Your task to perform on an android device: Empty the shopping cart on target.com. Add logitech g910 to the cart on target.com, then select checkout. Image 0: 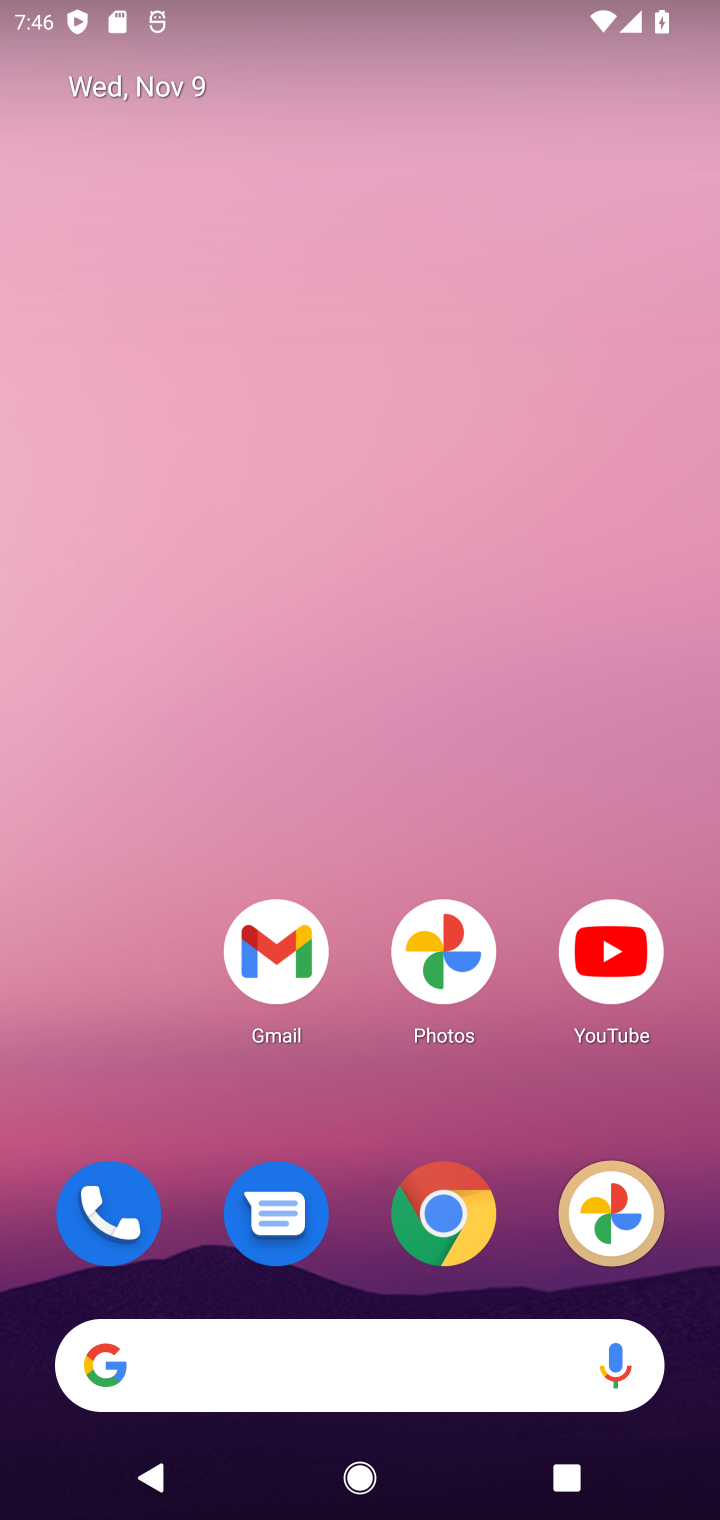
Step 0: click (463, 1226)
Your task to perform on an android device: Empty the shopping cart on target.com. Add logitech g910 to the cart on target.com, then select checkout. Image 1: 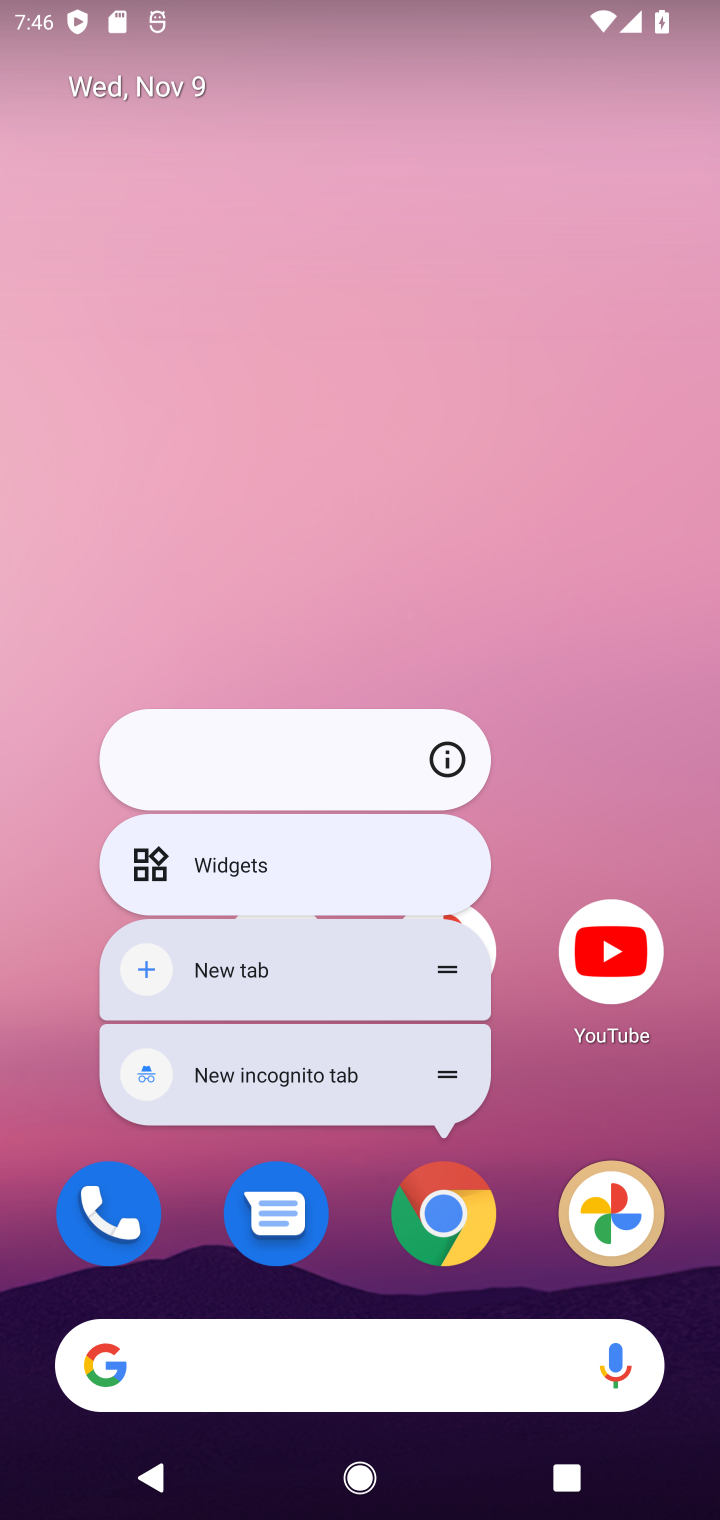
Step 1: click (443, 1214)
Your task to perform on an android device: Empty the shopping cart on target.com. Add logitech g910 to the cart on target.com, then select checkout. Image 2: 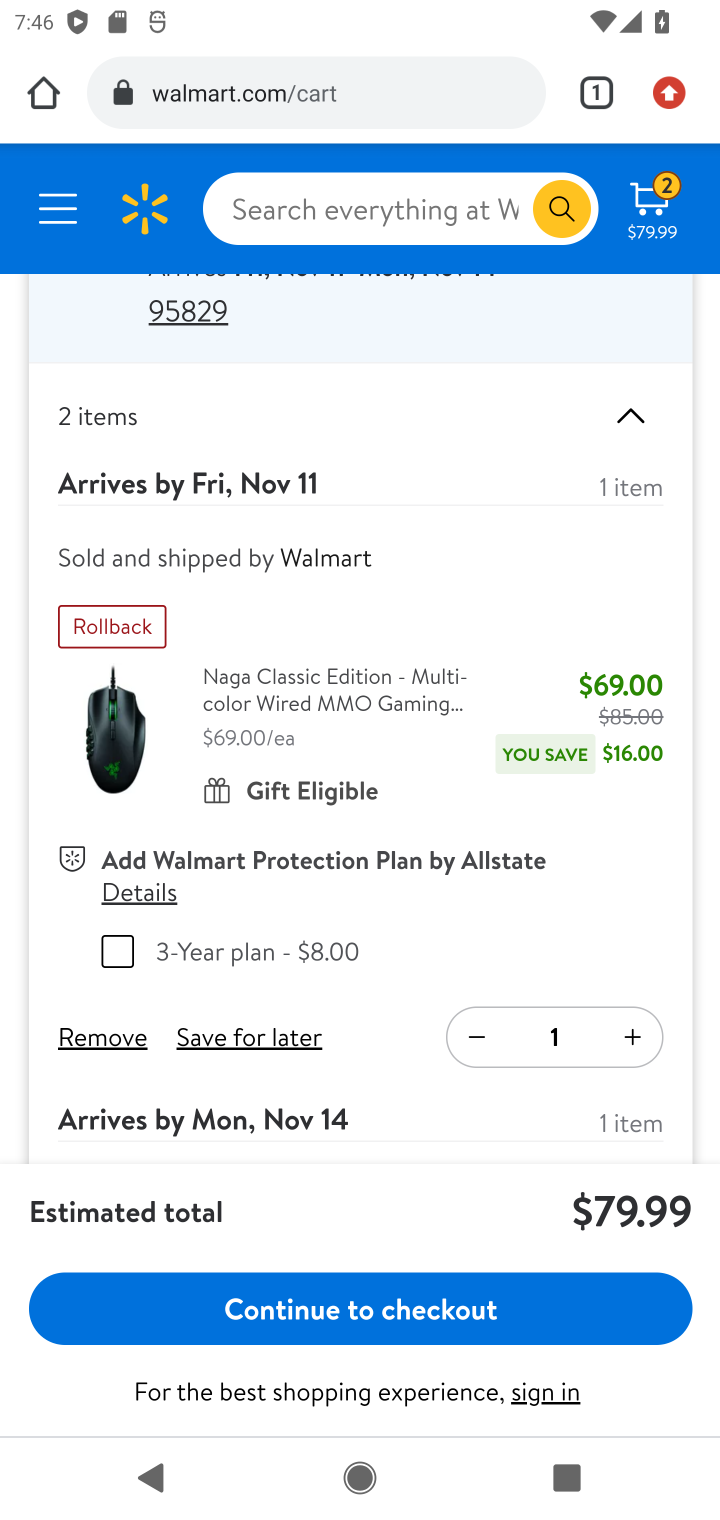
Step 2: click (227, 73)
Your task to perform on an android device: Empty the shopping cart on target.com. Add logitech g910 to the cart on target.com, then select checkout. Image 3: 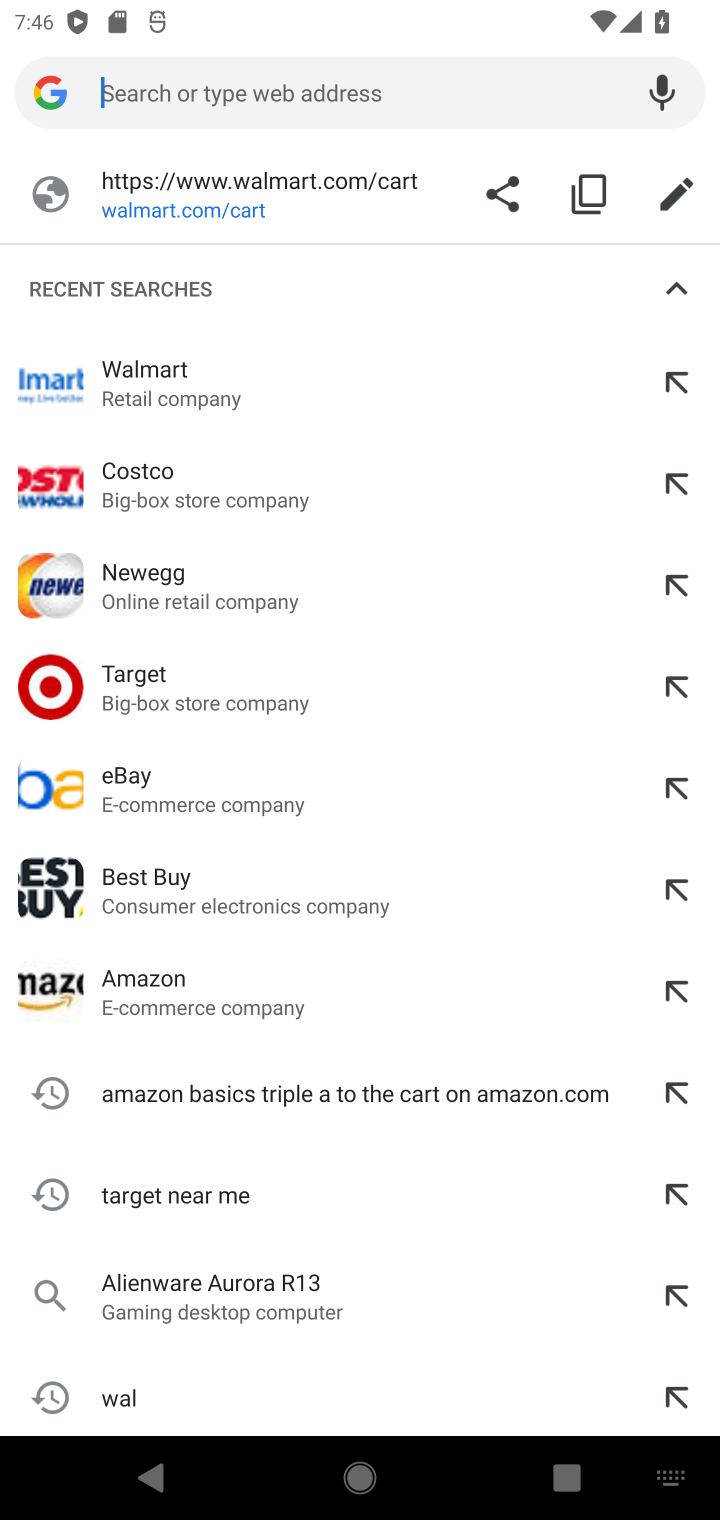
Step 3: click (117, 691)
Your task to perform on an android device: Empty the shopping cart on target.com. Add logitech g910 to the cart on target.com, then select checkout. Image 4: 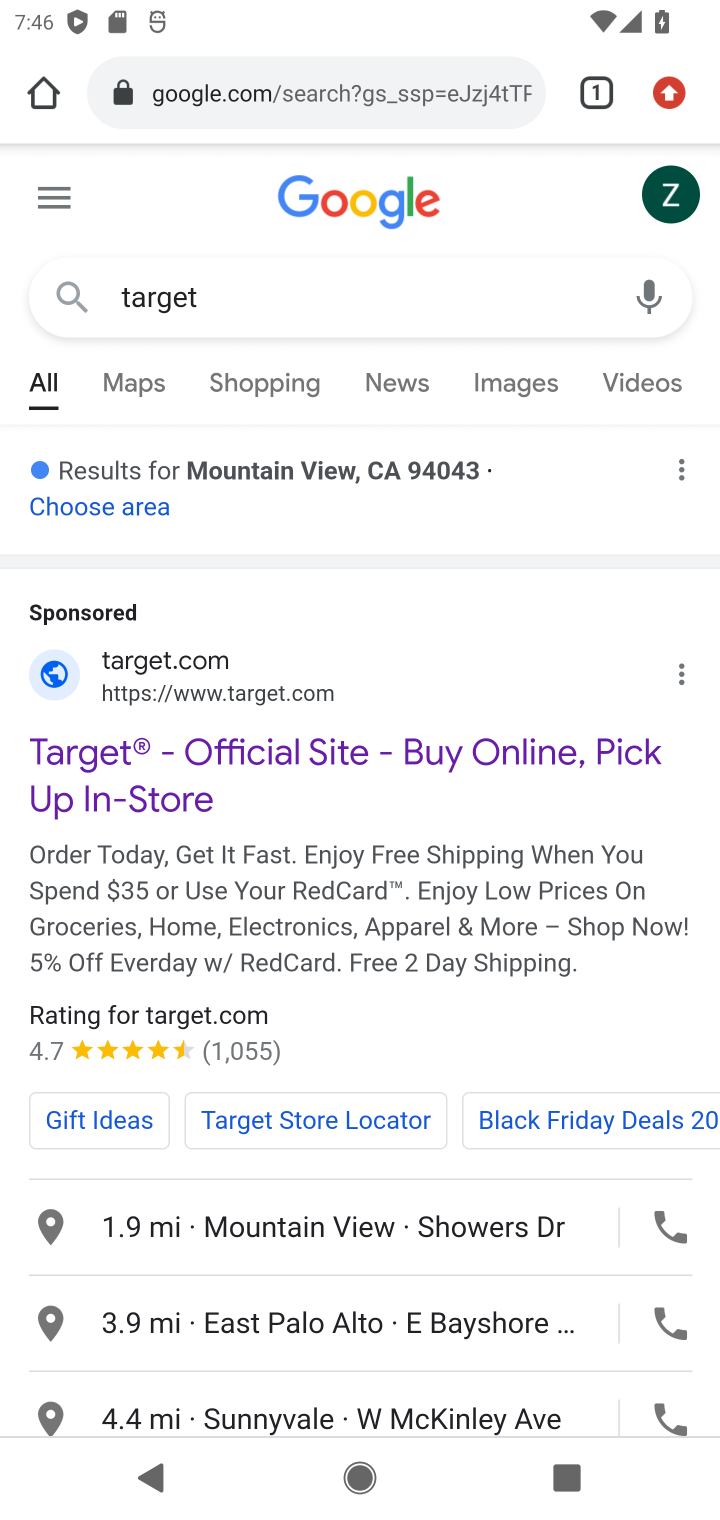
Step 4: drag from (279, 1168) to (332, 692)
Your task to perform on an android device: Empty the shopping cart on target.com. Add logitech g910 to the cart on target.com, then select checkout. Image 5: 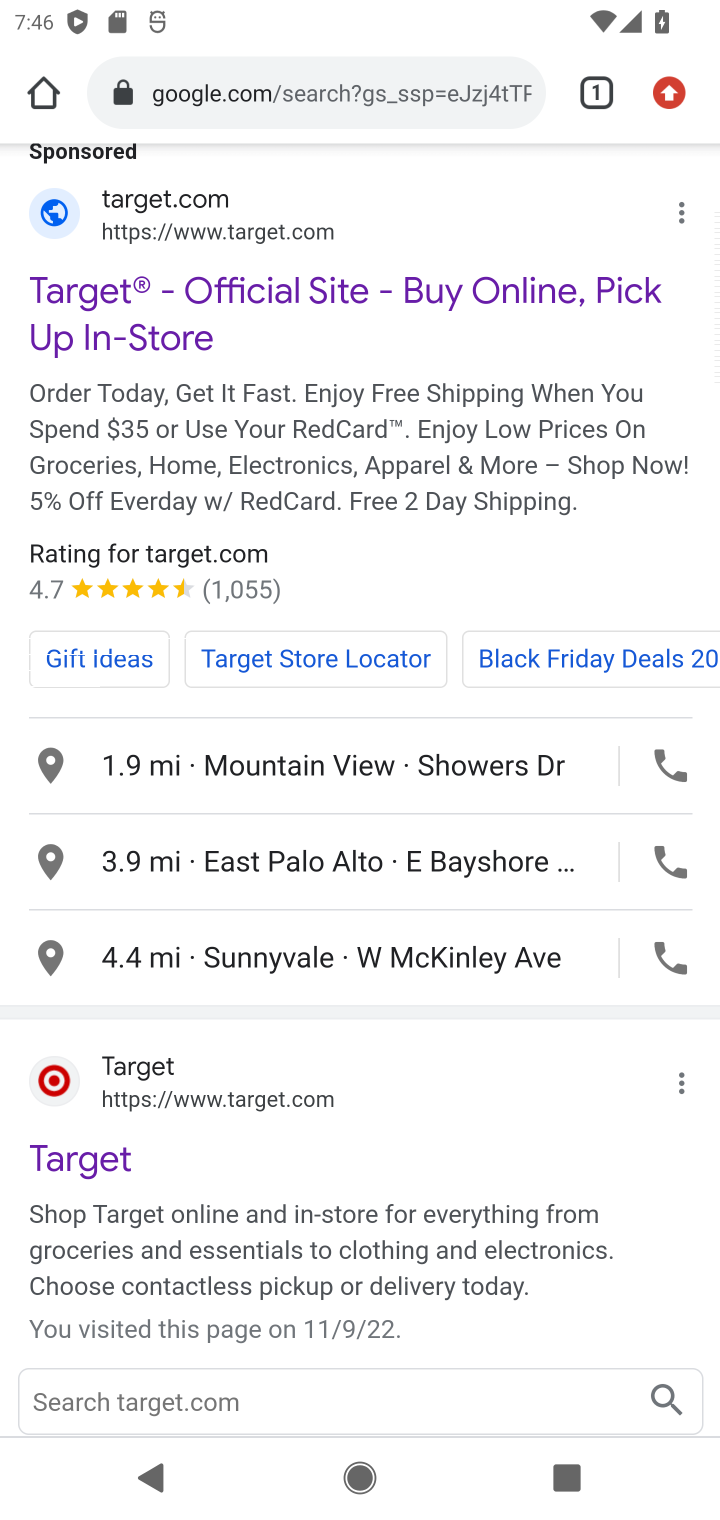
Step 5: click (76, 1165)
Your task to perform on an android device: Empty the shopping cart on target.com. Add logitech g910 to the cart on target.com, then select checkout. Image 6: 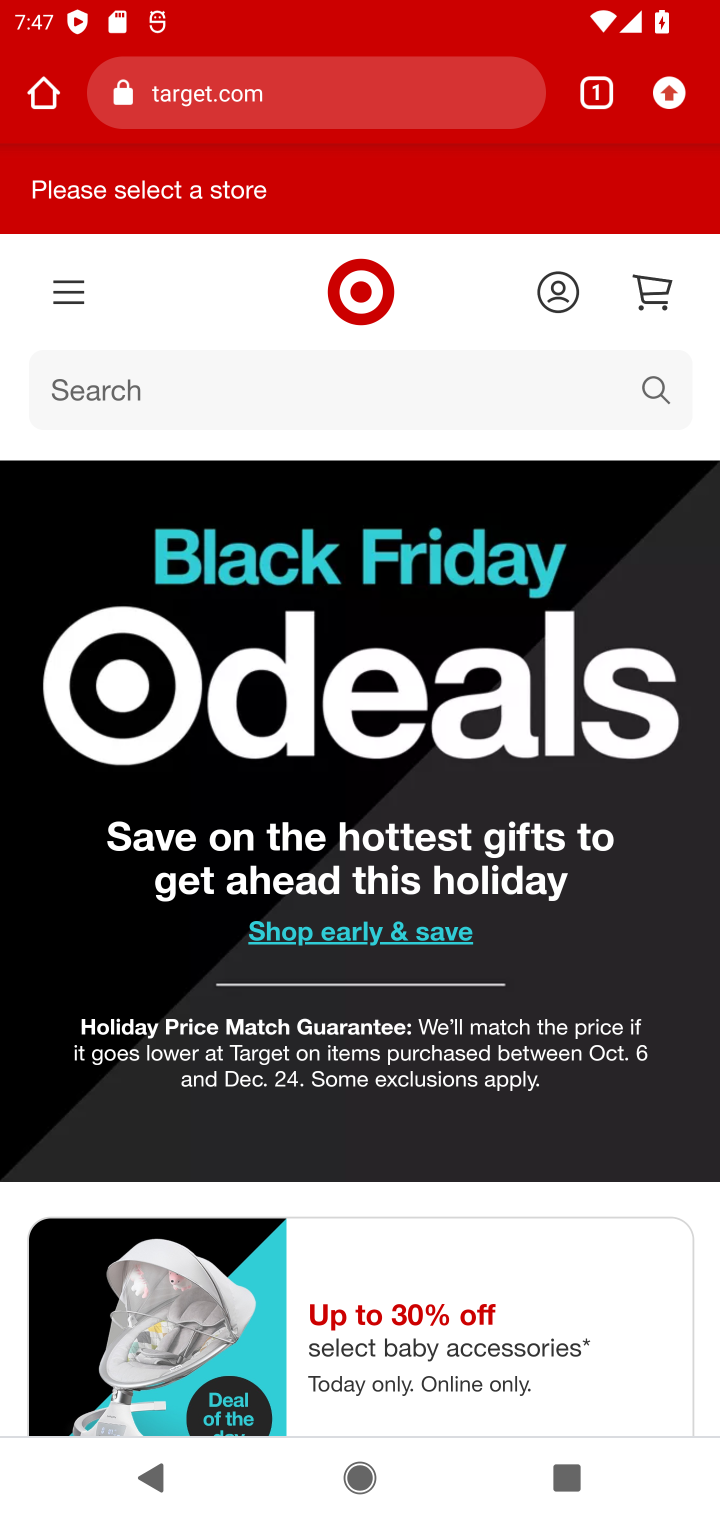
Step 6: click (168, 387)
Your task to perform on an android device: Empty the shopping cart on target.com. Add logitech g910 to the cart on target.com, then select checkout. Image 7: 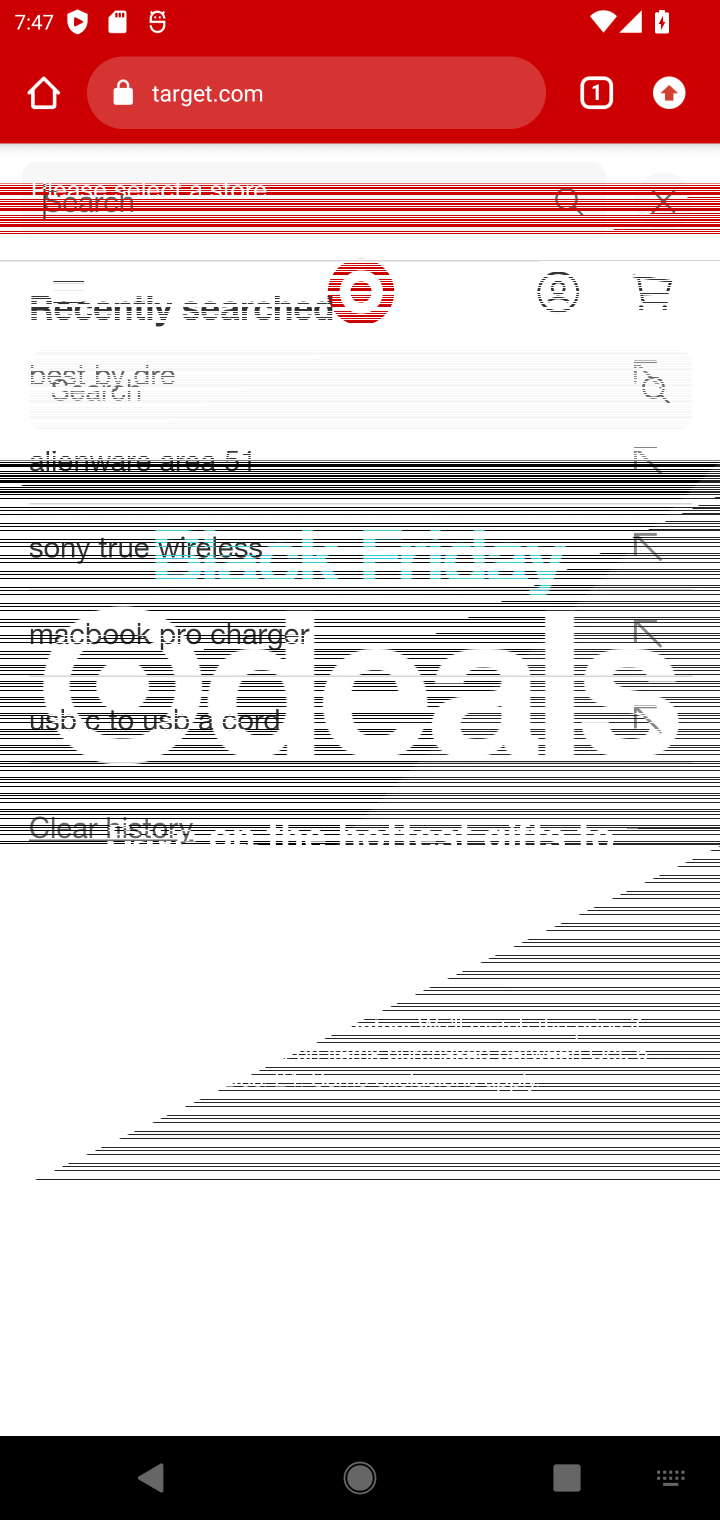
Step 7: click (208, 411)
Your task to perform on an android device: Empty the shopping cart on target.com. Add logitech g910 to the cart on target.com, then select checkout. Image 8: 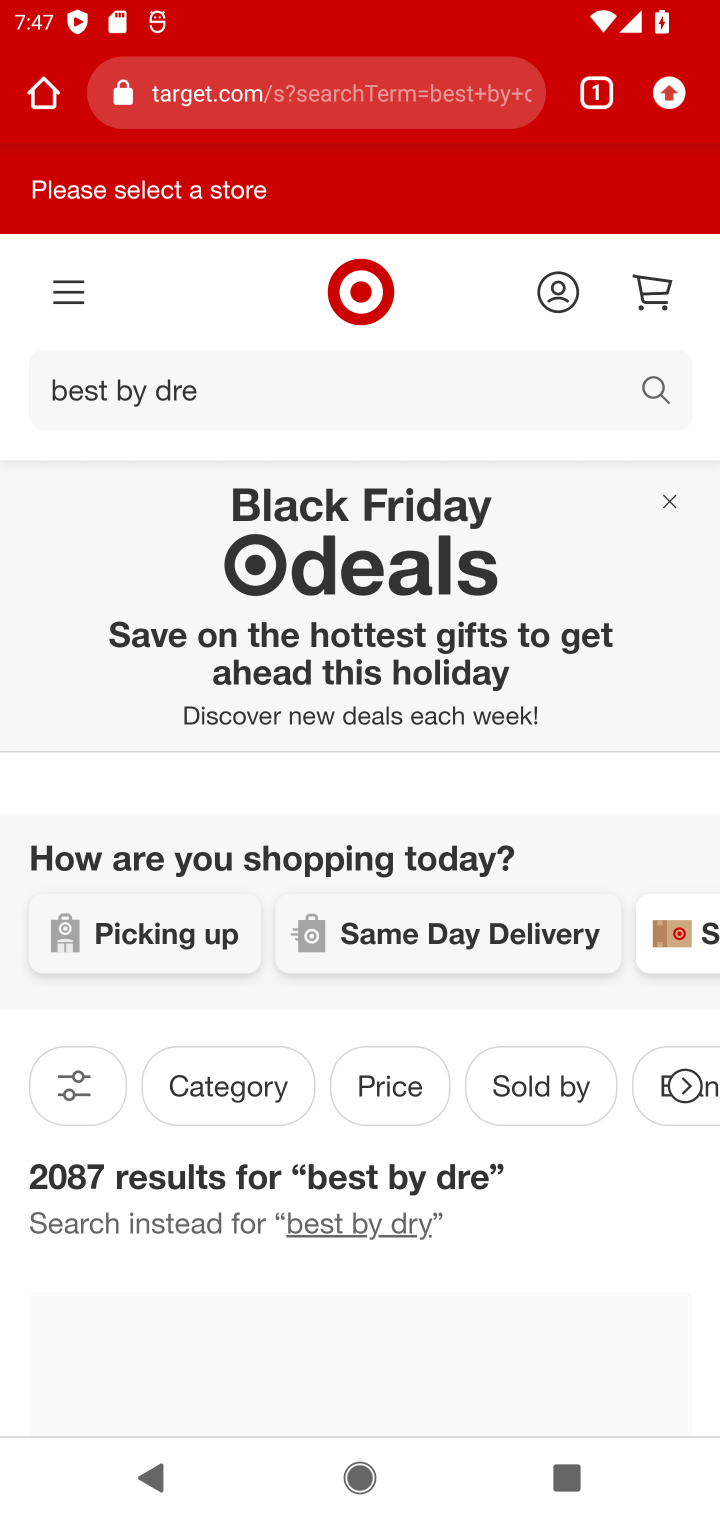
Step 8: click (408, 367)
Your task to perform on an android device: Empty the shopping cart on target.com. Add logitech g910 to the cart on target.com, then select checkout. Image 9: 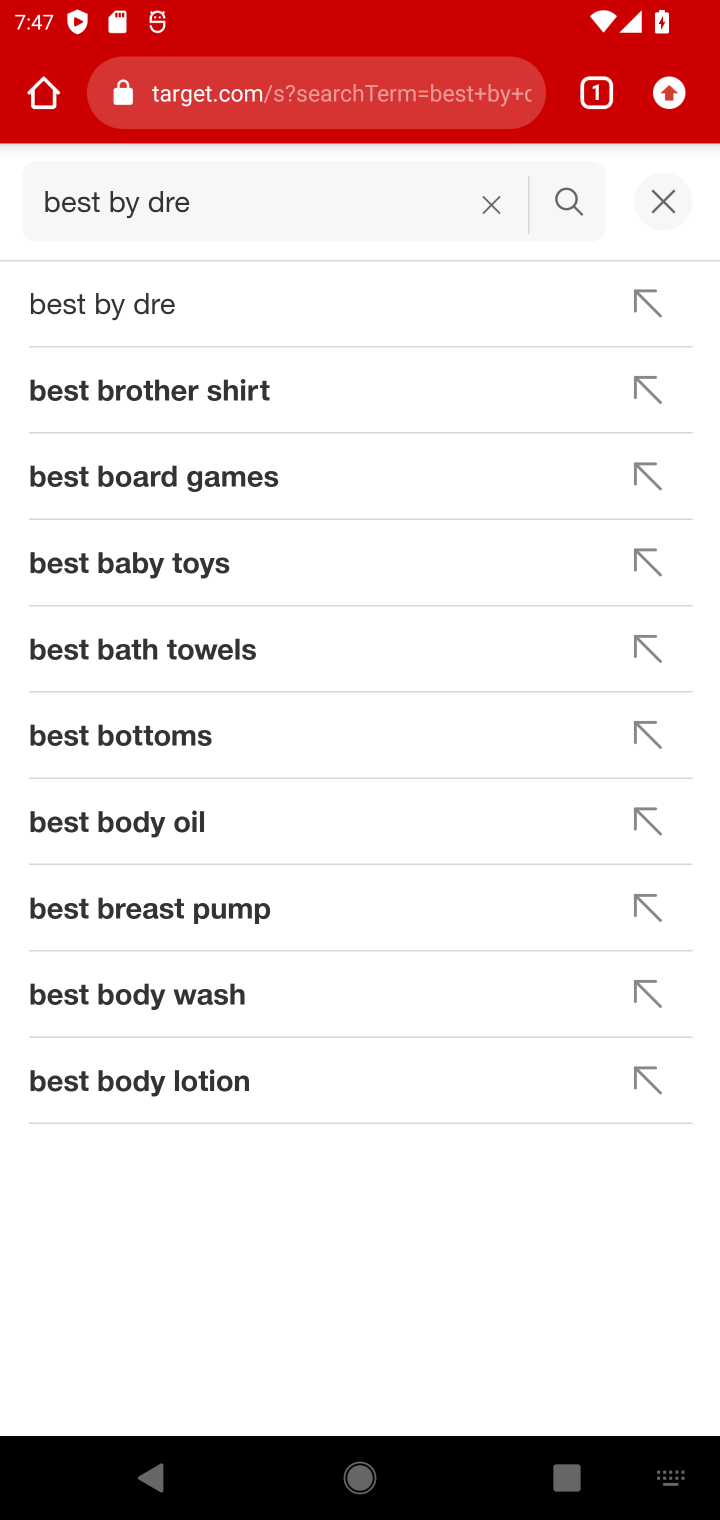
Step 9: click (494, 202)
Your task to perform on an android device: Empty the shopping cart on target.com. Add logitech g910 to the cart on target.com, then select checkout. Image 10: 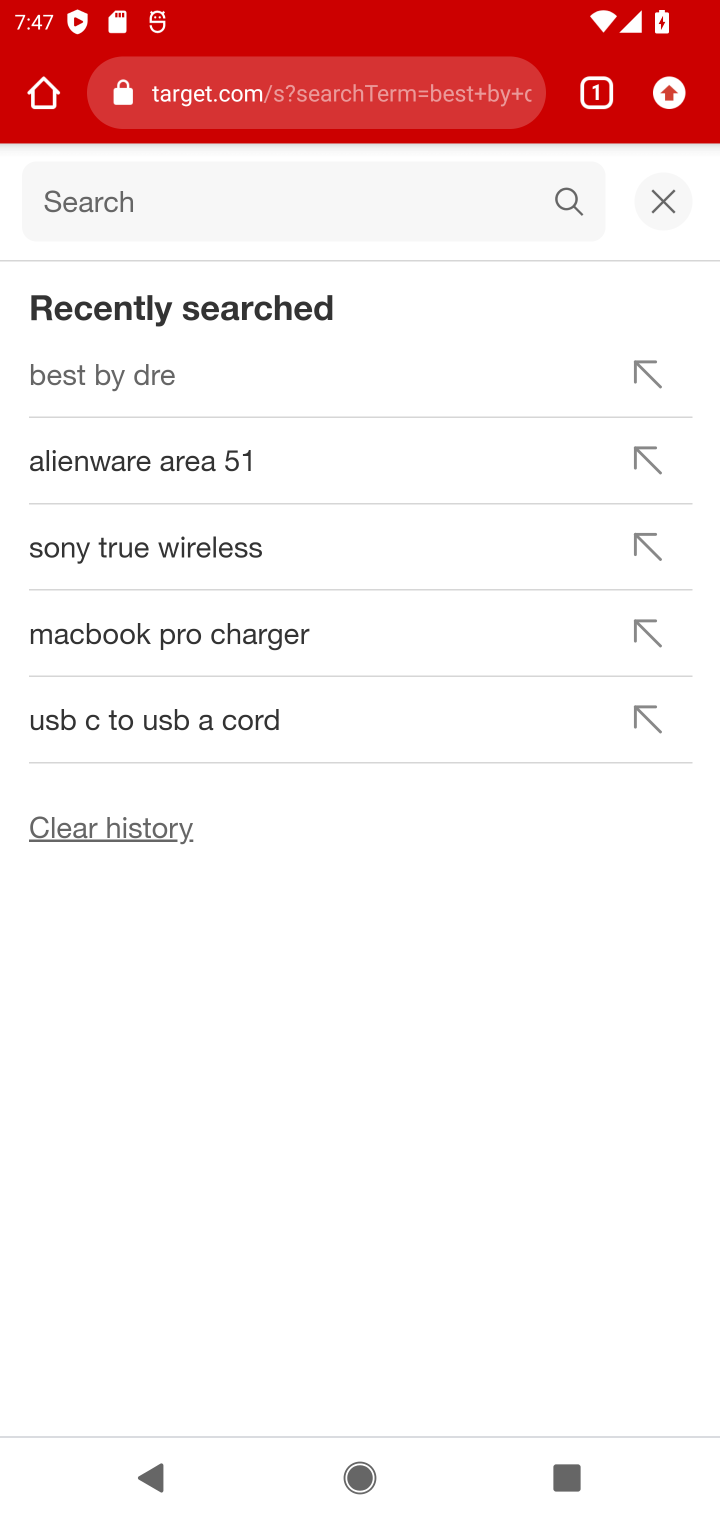
Step 10: click (494, 202)
Your task to perform on an android device: Empty the shopping cart on target.com. Add logitech g910 to the cart on target.com, then select checkout. Image 11: 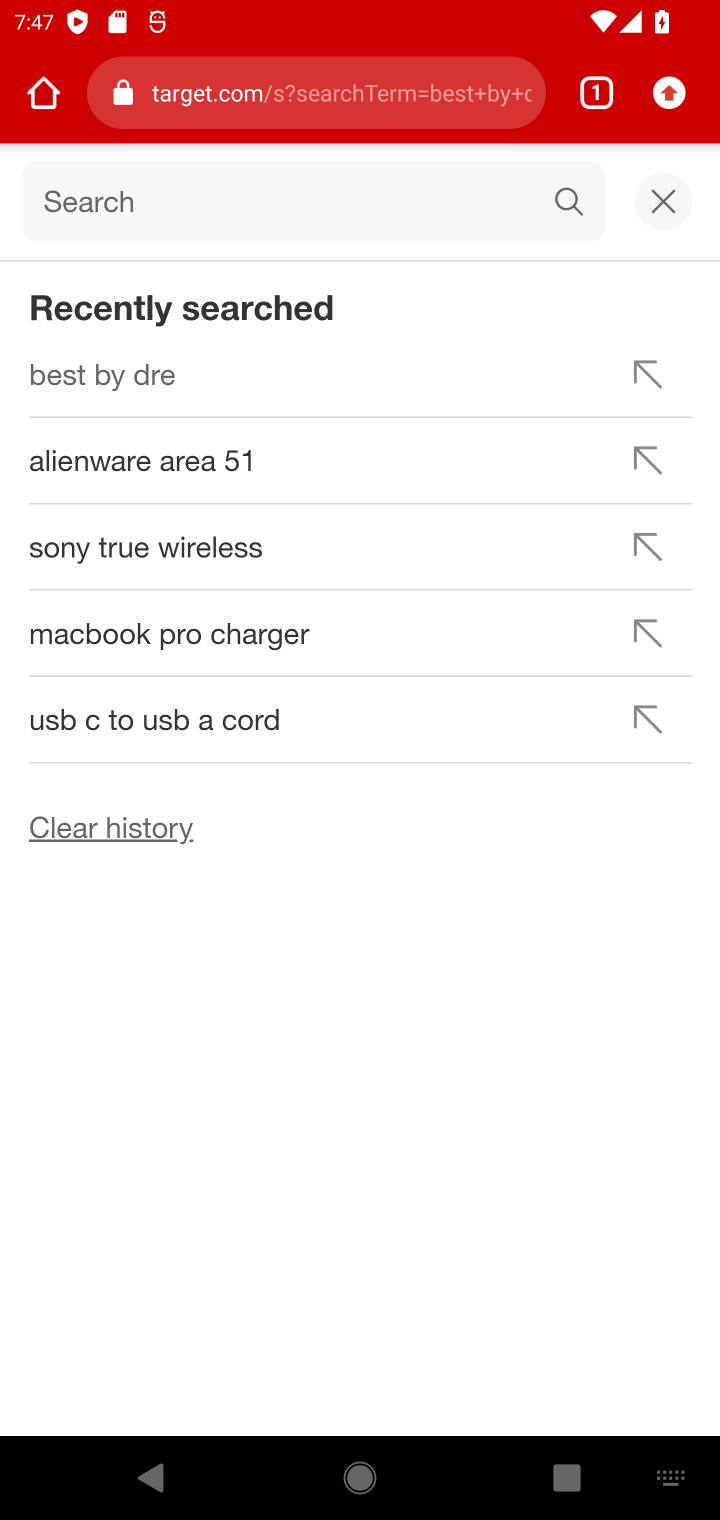
Step 11: click (207, 189)
Your task to perform on an android device: Empty the shopping cart on target.com. Add logitech g910 to the cart on target.com, then select checkout. Image 12: 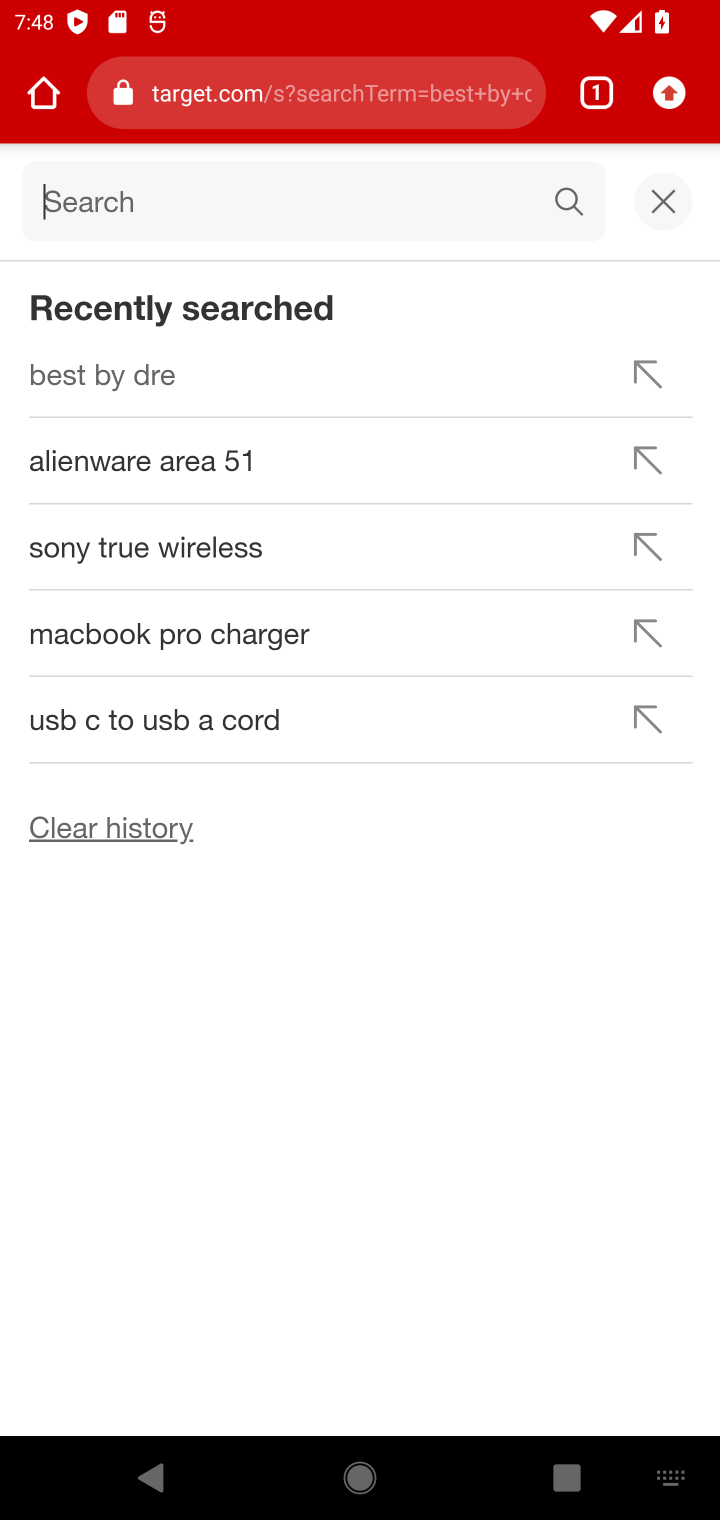
Step 12: type "logitech g 910"
Your task to perform on an android device: Empty the shopping cart on target.com. Add logitech g910 to the cart on target.com, then select checkout. Image 13: 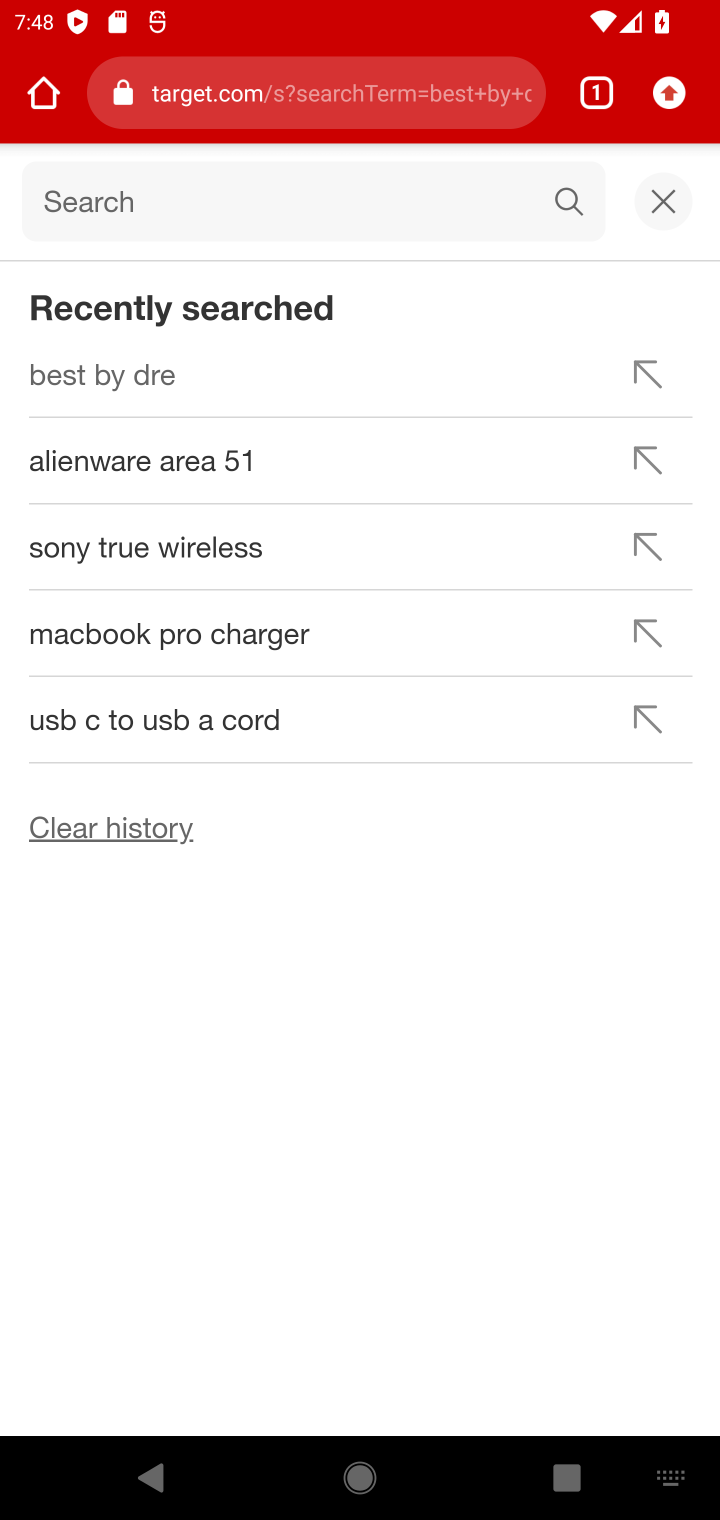
Step 13: type ""
Your task to perform on an android device: Empty the shopping cart on target.com. Add logitech g910 to the cart on target.com, then select checkout. Image 14: 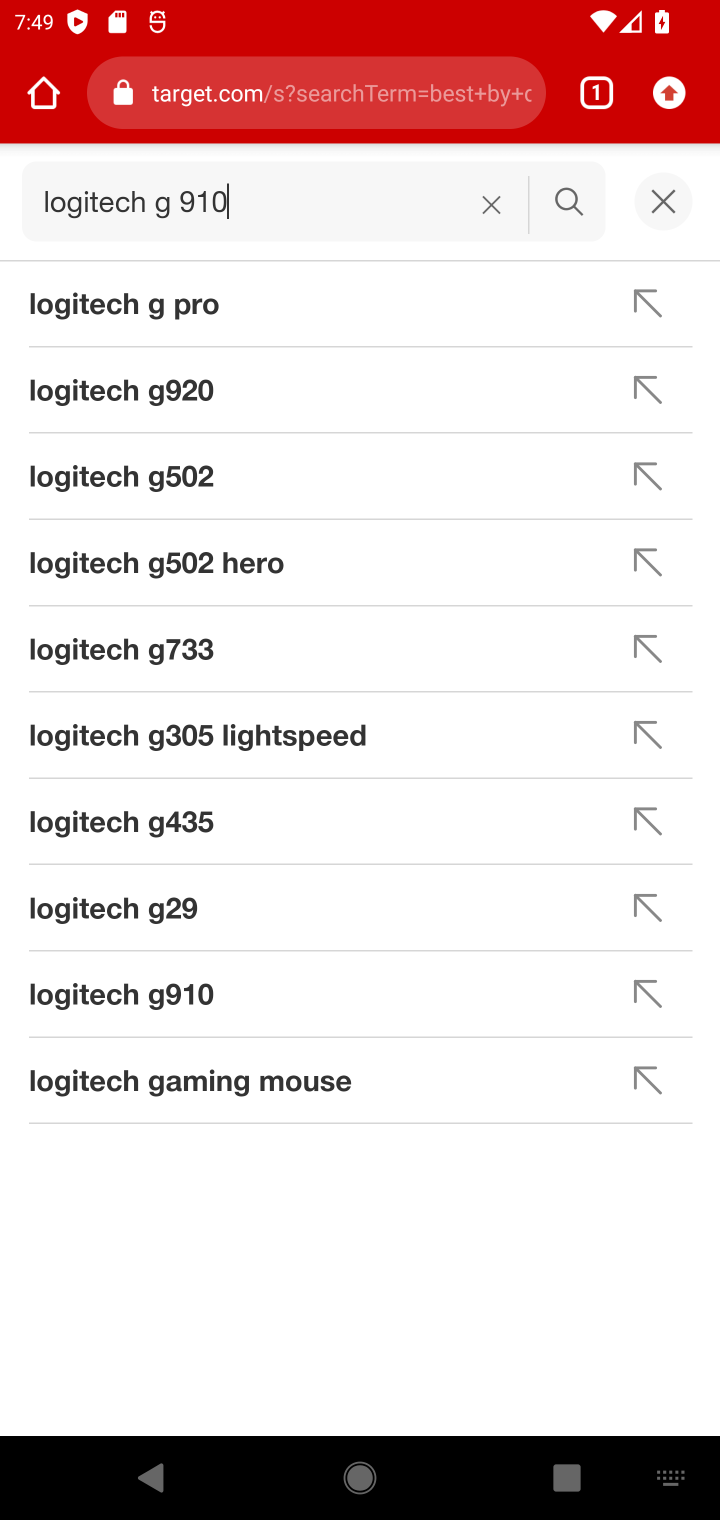
Step 14: click (161, 307)
Your task to perform on an android device: Empty the shopping cart on target.com. Add logitech g910 to the cart on target.com, then select checkout. Image 15: 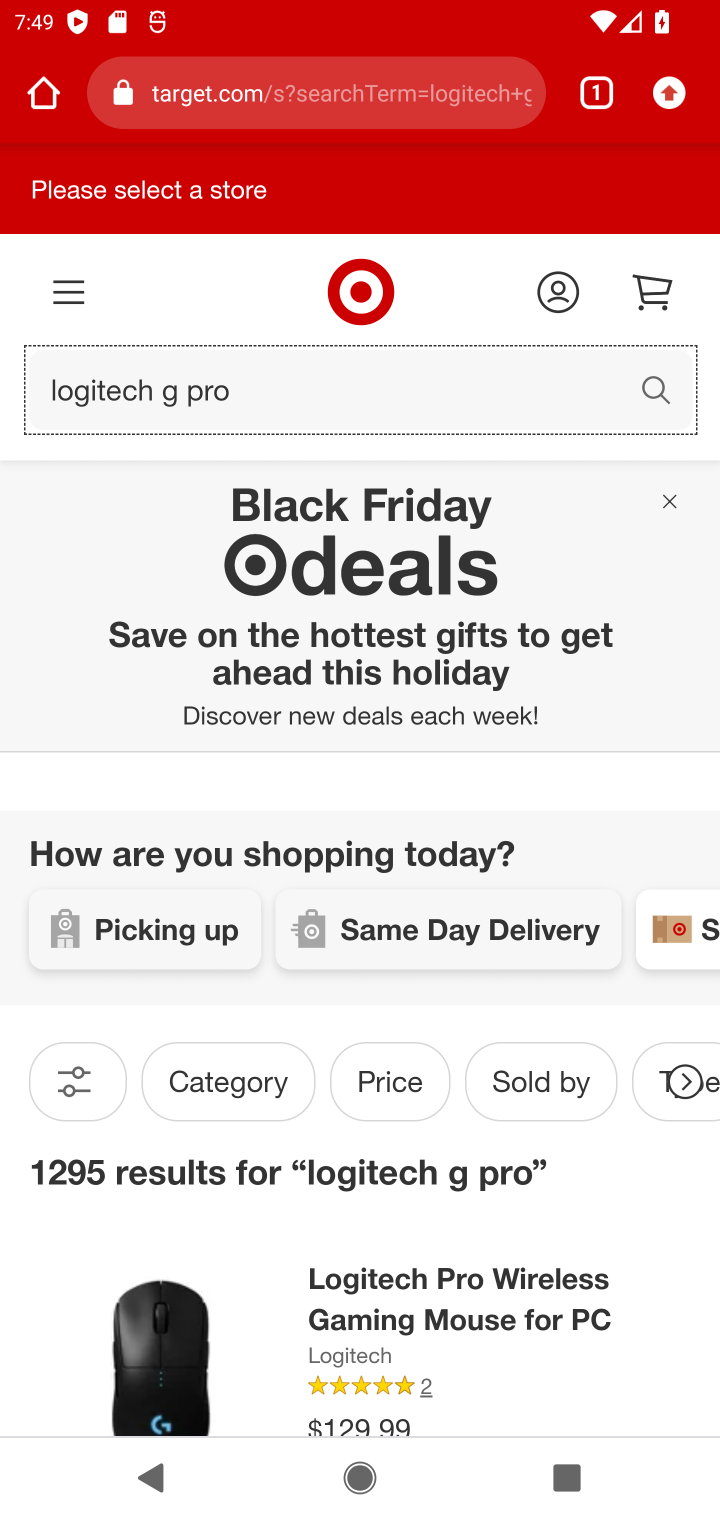
Step 15: drag from (245, 965) to (239, 567)
Your task to perform on an android device: Empty the shopping cart on target.com. Add logitech g910 to the cart on target.com, then select checkout. Image 16: 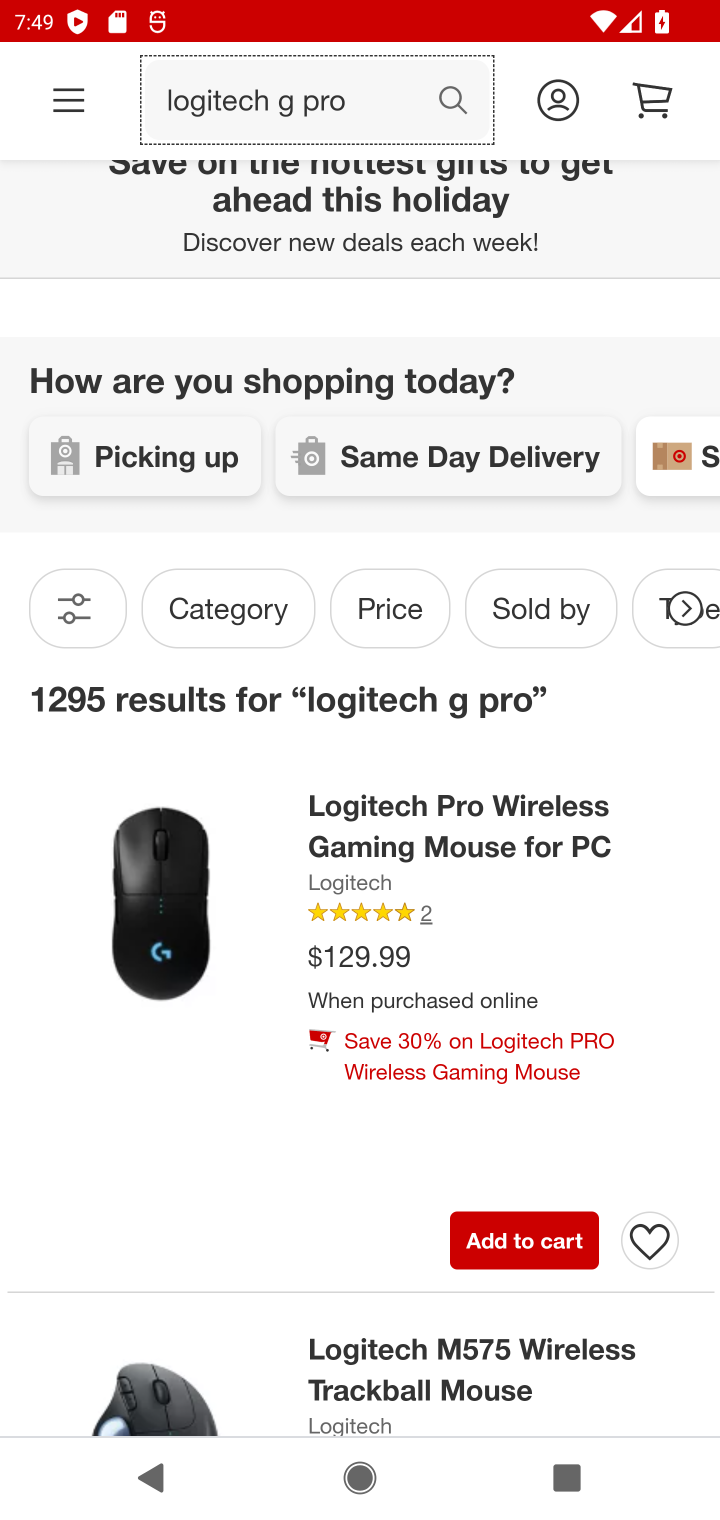
Step 16: click (352, 955)
Your task to perform on an android device: Empty the shopping cart on target.com. Add logitech g910 to the cart on target.com, then select checkout. Image 17: 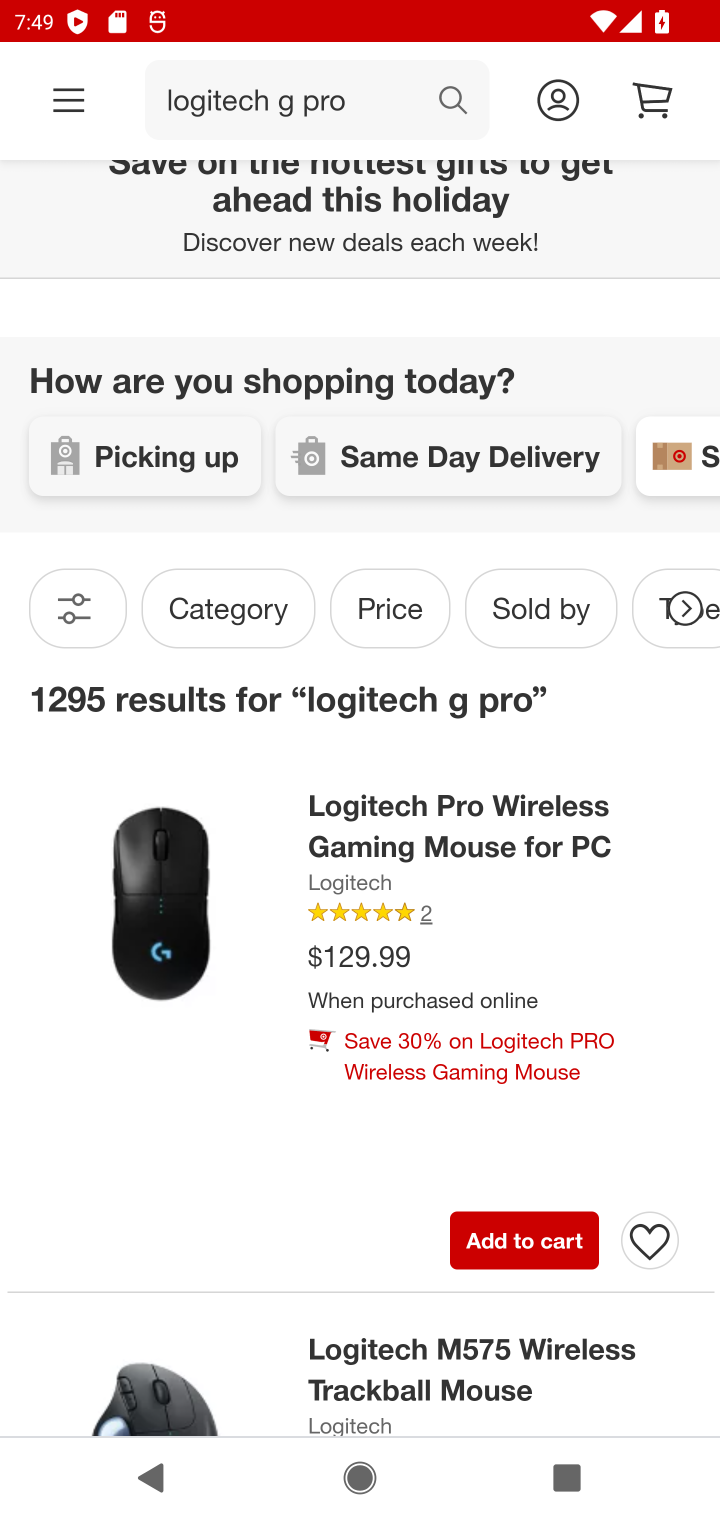
Step 17: click (396, 790)
Your task to perform on an android device: Empty the shopping cart on target.com. Add logitech g910 to the cart on target.com, then select checkout. Image 18: 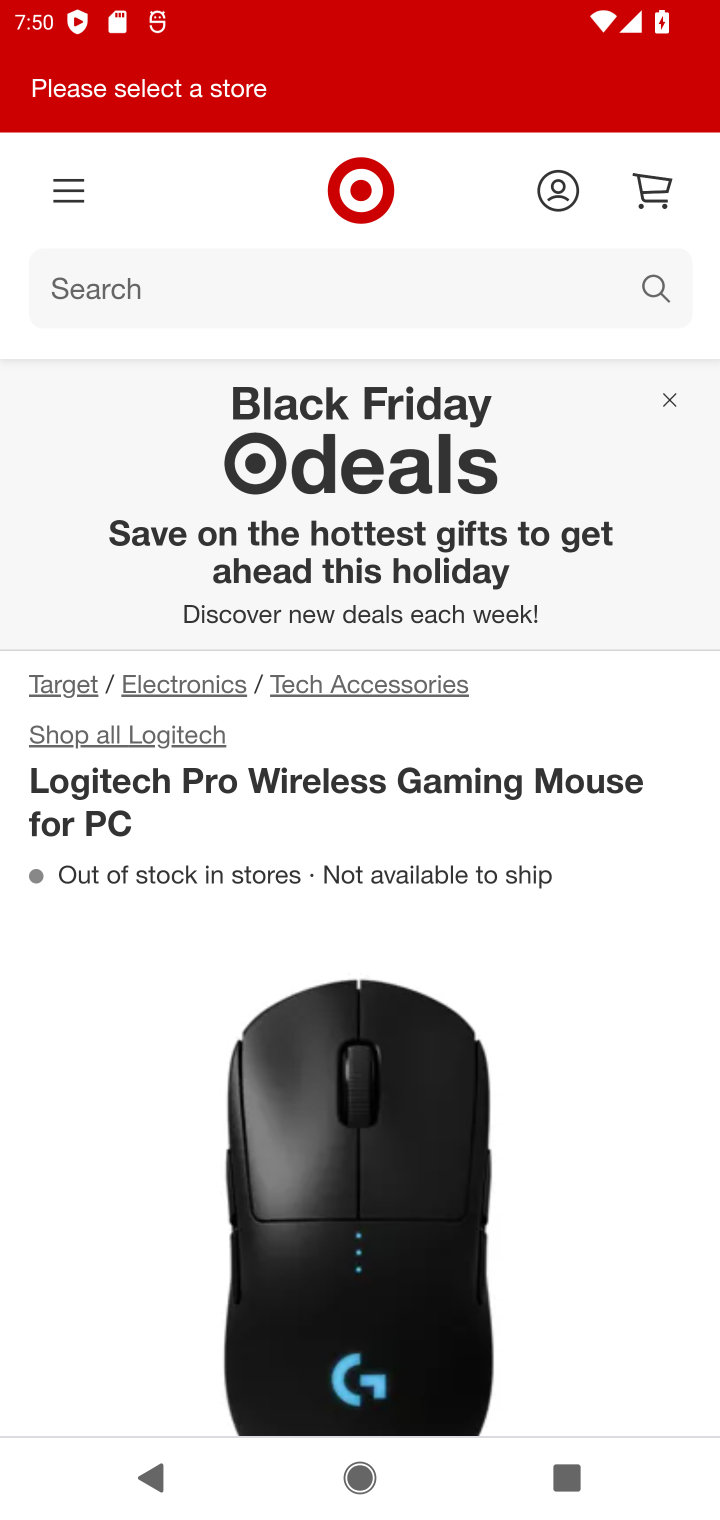
Step 18: click (198, 271)
Your task to perform on an android device: Empty the shopping cart on target.com. Add logitech g910 to the cart on target.com, then select checkout. Image 19: 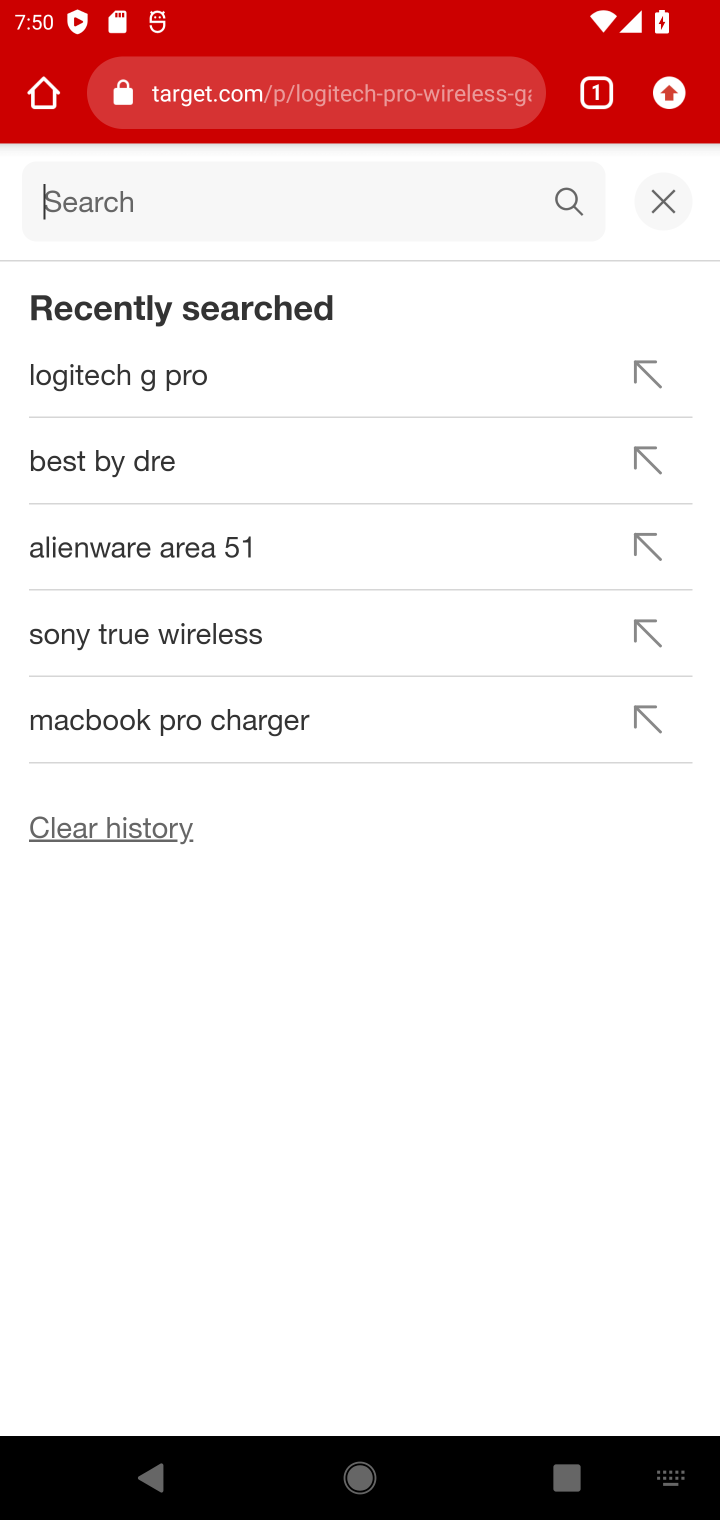
Step 19: click (159, 393)
Your task to perform on an android device: Empty the shopping cart on target.com. Add logitech g910 to the cart on target.com, then select checkout. Image 20: 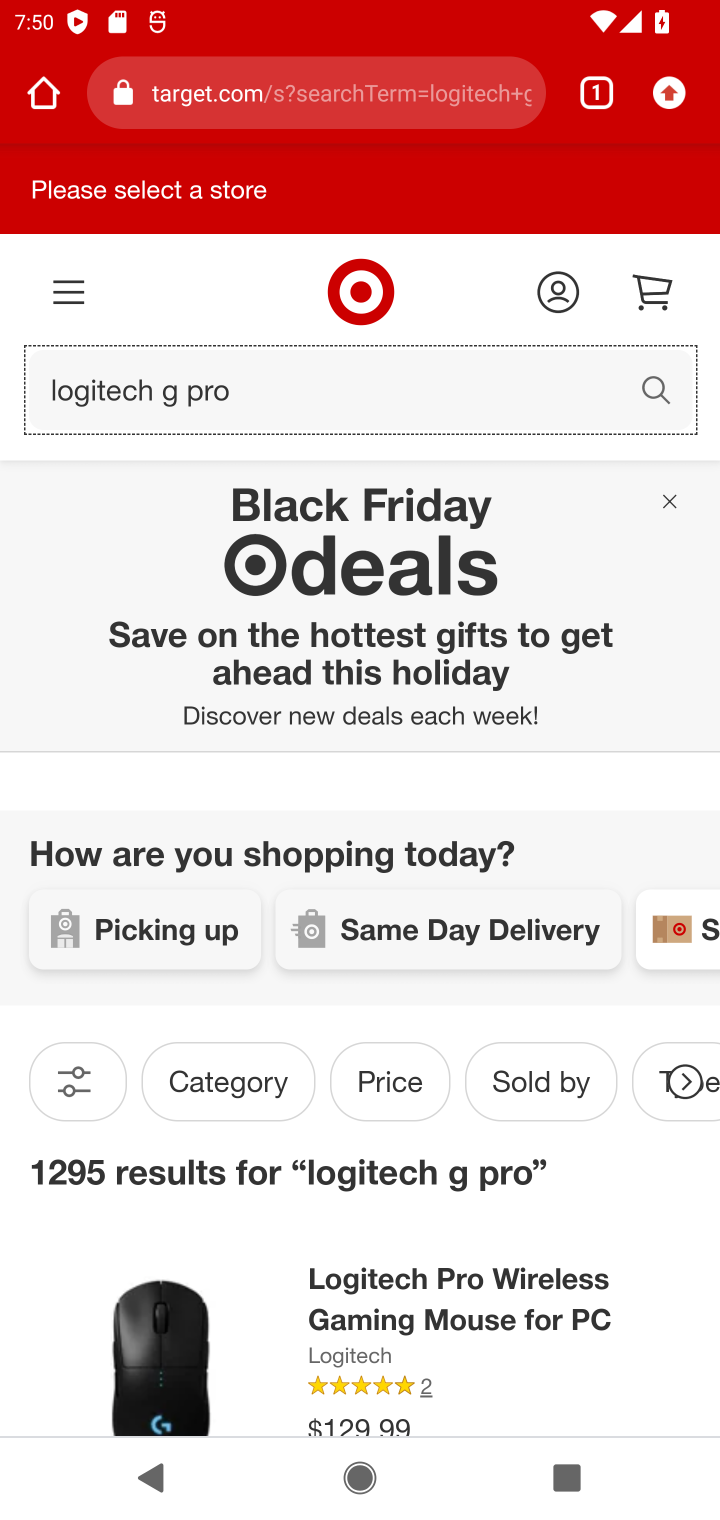
Step 20: click (381, 1276)
Your task to perform on an android device: Empty the shopping cart on target.com. Add logitech g910 to the cart on target.com, then select checkout. Image 21: 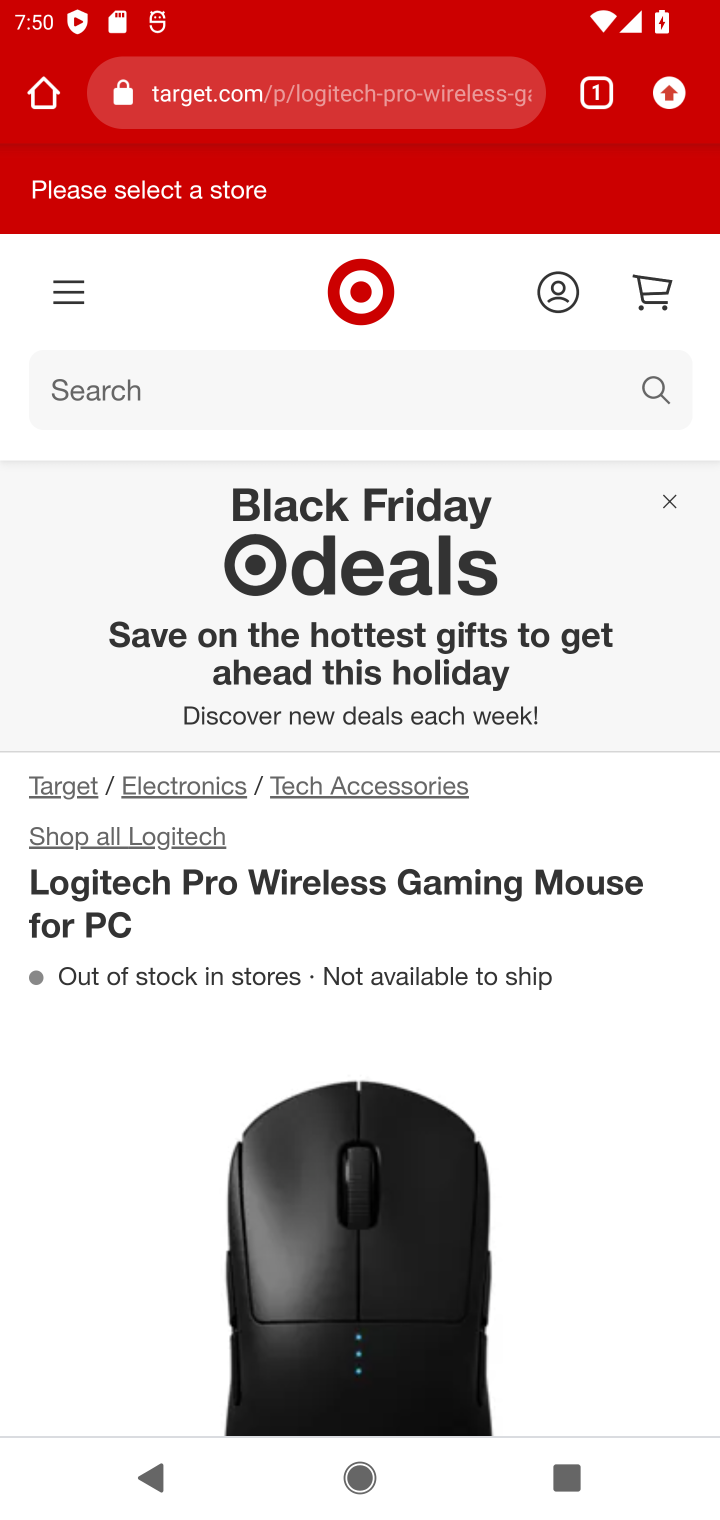
Step 21: drag from (102, 1201) to (270, 471)
Your task to perform on an android device: Empty the shopping cart on target.com. Add logitech g910 to the cart on target.com, then select checkout. Image 22: 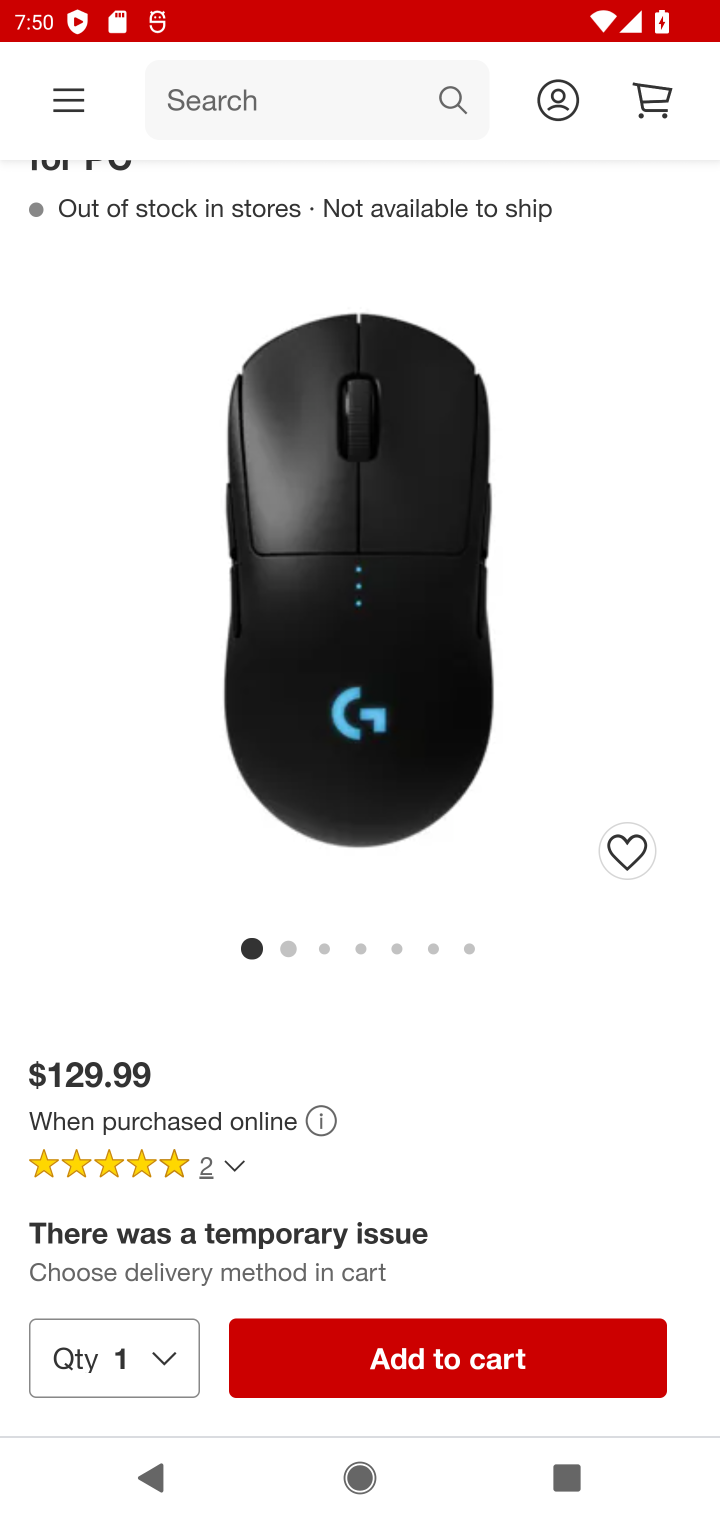
Step 22: click (444, 1354)
Your task to perform on an android device: Empty the shopping cart on target.com. Add logitech g910 to the cart on target.com, then select checkout. Image 23: 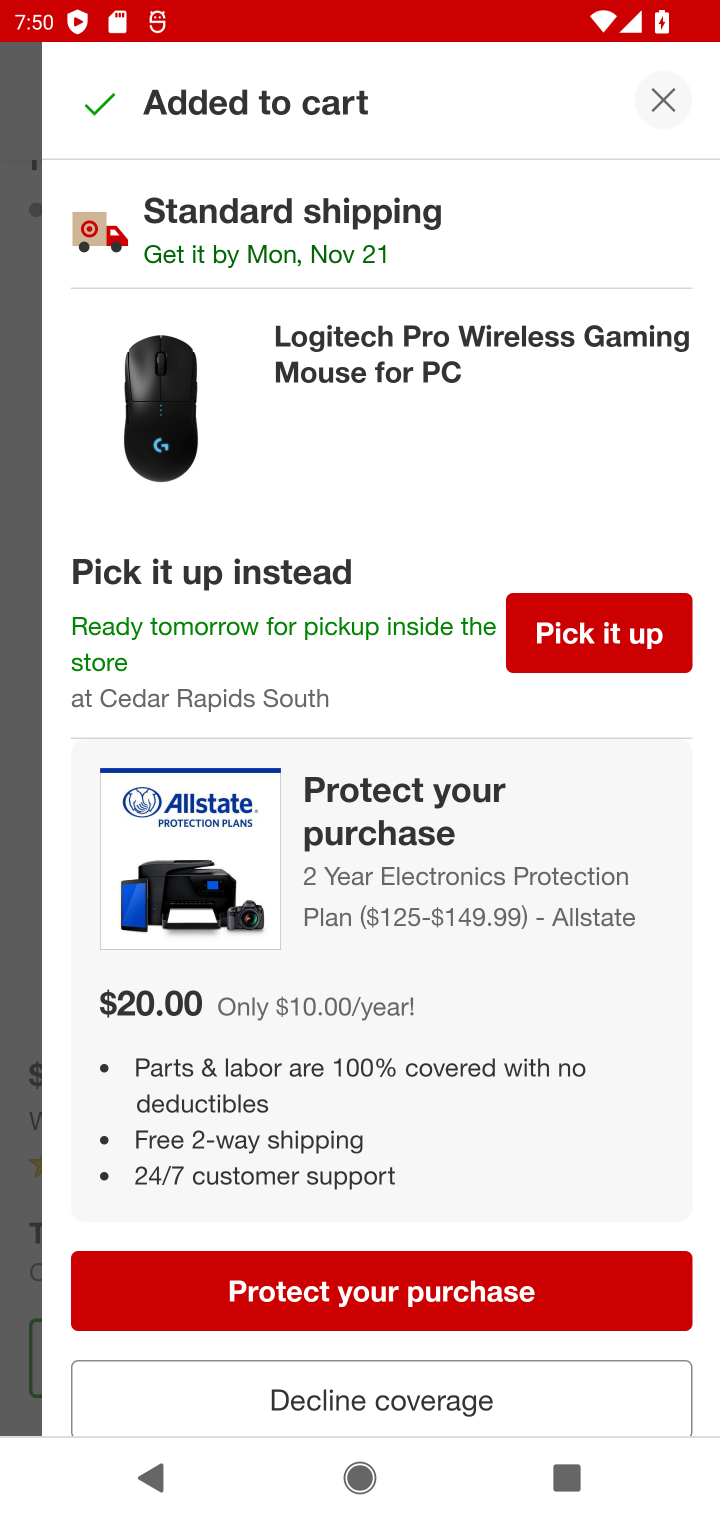
Step 23: click (319, 1307)
Your task to perform on an android device: Empty the shopping cart on target.com. Add logitech g910 to the cart on target.com, then select checkout. Image 24: 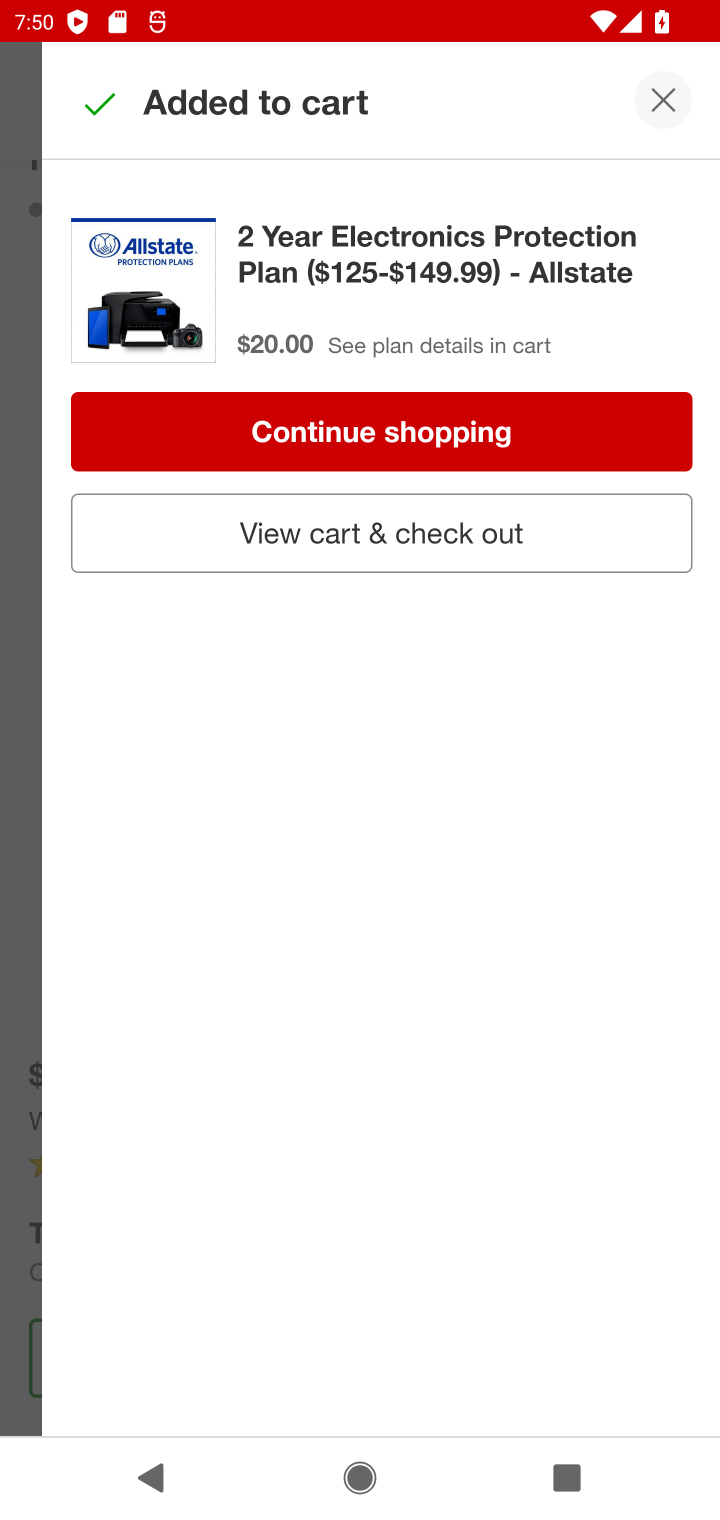
Step 24: click (337, 441)
Your task to perform on an android device: Empty the shopping cart on target.com. Add logitech g910 to the cart on target.com, then select checkout. Image 25: 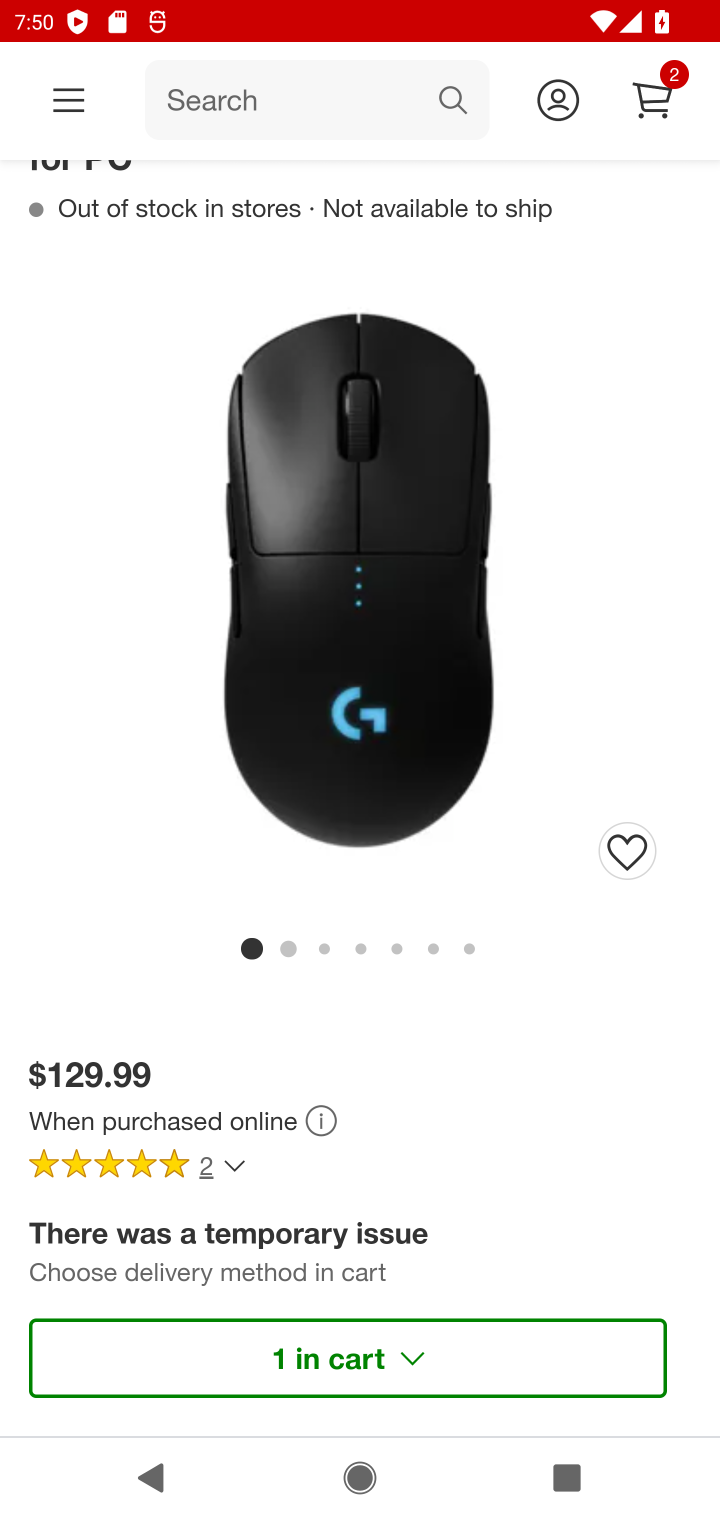
Step 25: task complete